Your task to perform on an android device: turn on bluetooth scan Image 0: 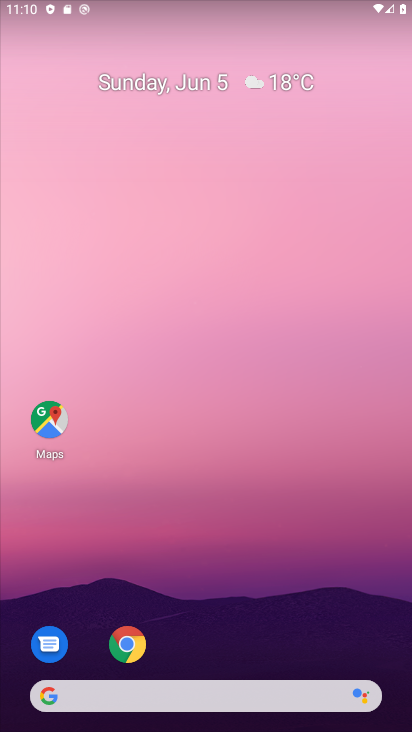
Step 0: drag from (285, 706) to (238, 251)
Your task to perform on an android device: turn on bluetooth scan Image 1: 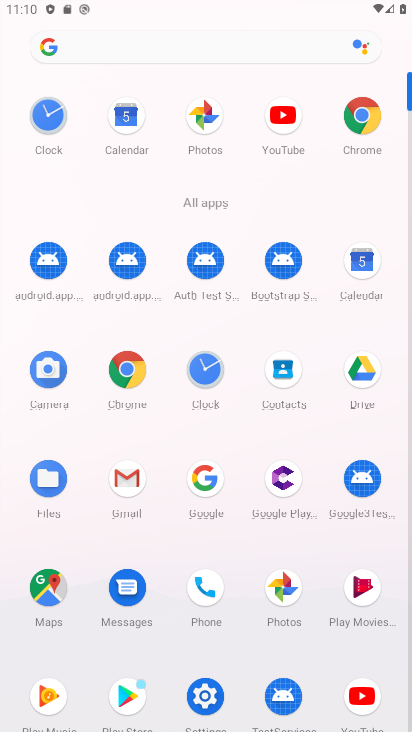
Step 1: click (210, 681)
Your task to perform on an android device: turn on bluetooth scan Image 2: 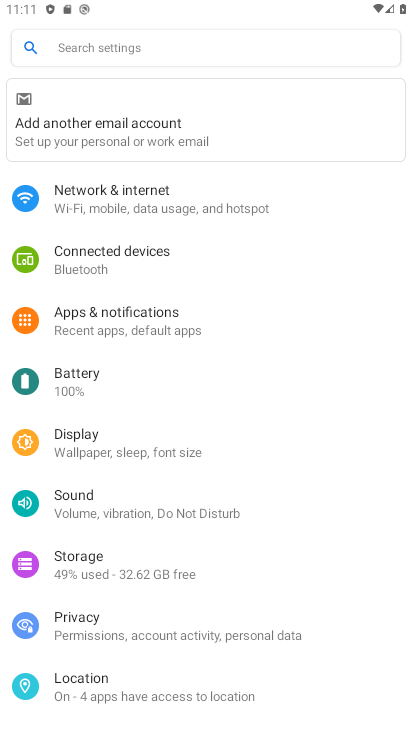
Step 2: click (126, 52)
Your task to perform on an android device: turn on bluetooth scan Image 3: 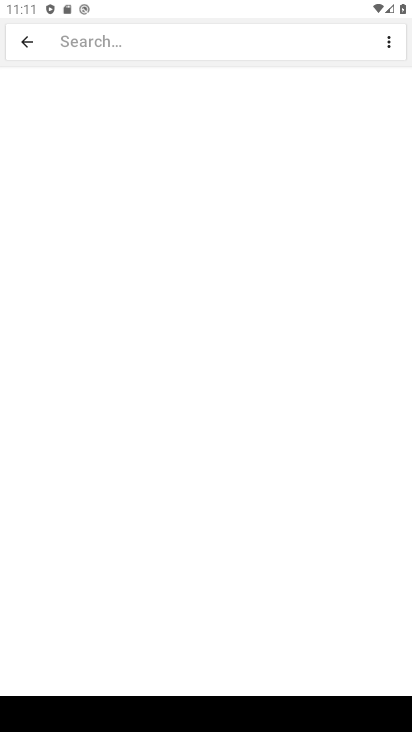
Step 3: drag from (388, 707) to (383, 535)
Your task to perform on an android device: turn on bluetooth scan Image 4: 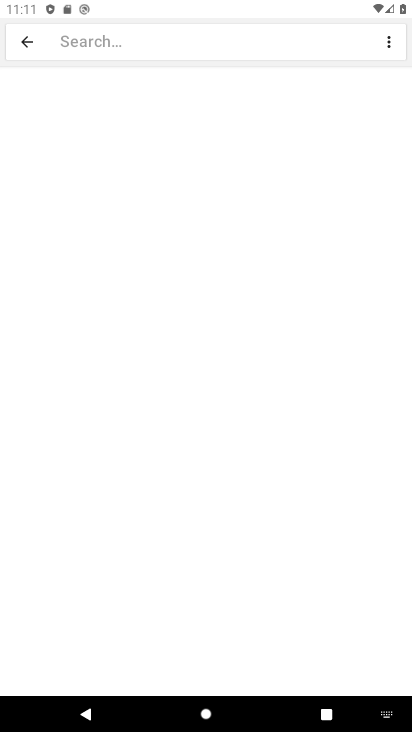
Step 4: click (396, 708)
Your task to perform on an android device: turn on bluetooth scan Image 5: 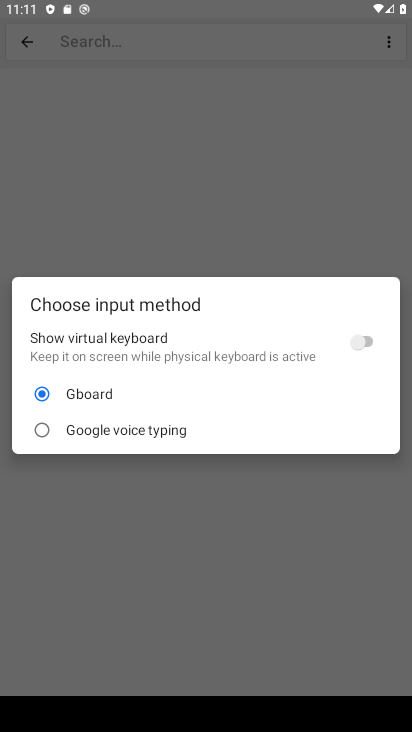
Step 5: click (378, 340)
Your task to perform on an android device: turn on bluetooth scan Image 6: 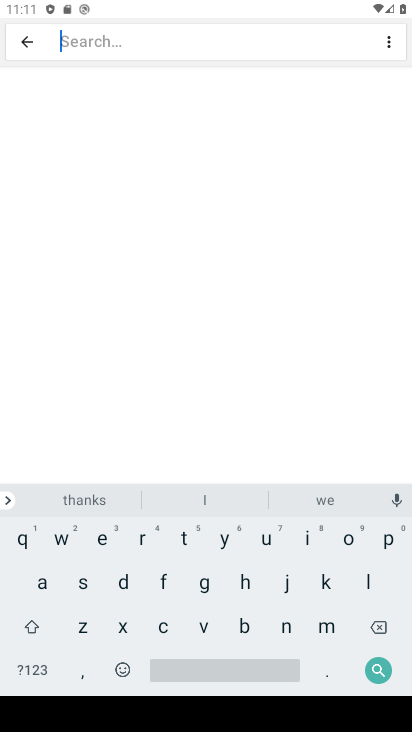
Step 6: click (364, 588)
Your task to perform on an android device: turn on bluetooth scan Image 7: 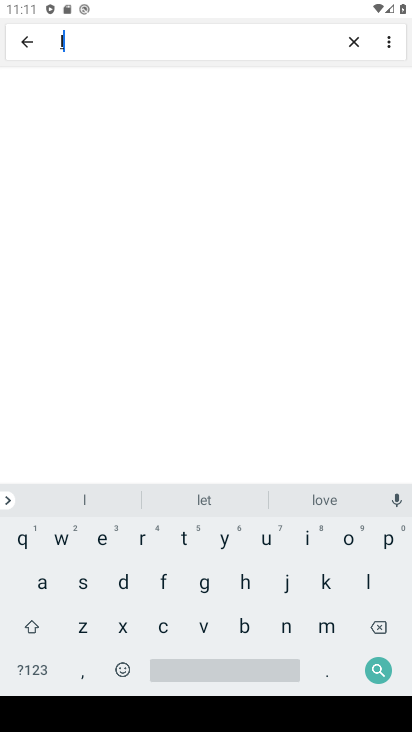
Step 7: click (354, 545)
Your task to perform on an android device: turn on bluetooth scan Image 8: 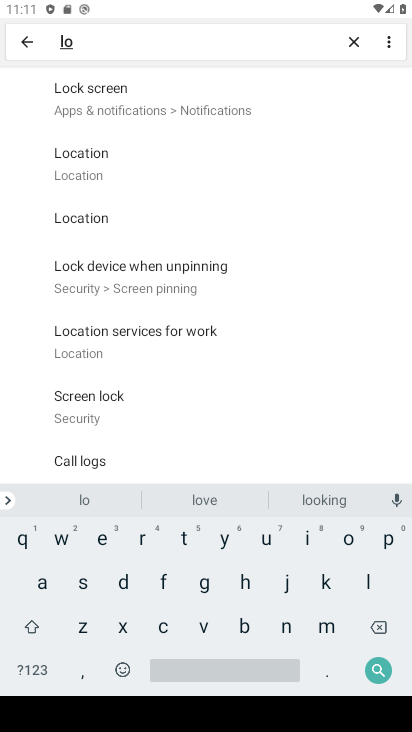
Step 8: click (116, 145)
Your task to perform on an android device: turn on bluetooth scan Image 9: 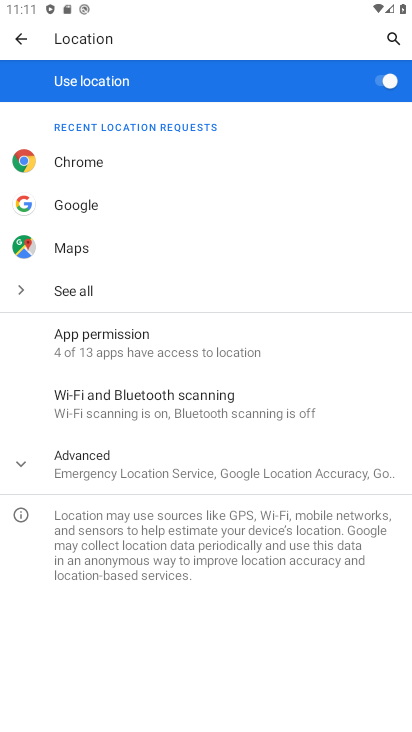
Step 9: click (20, 483)
Your task to perform on an android device: turn on bluetooth scan Image 10: 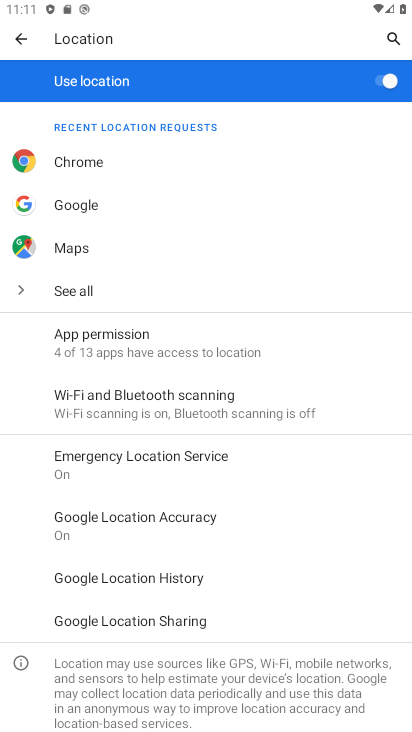
Step 10: click (177, 398)
Your task to perform on an android device: turn on bluetooth scan Image 11: 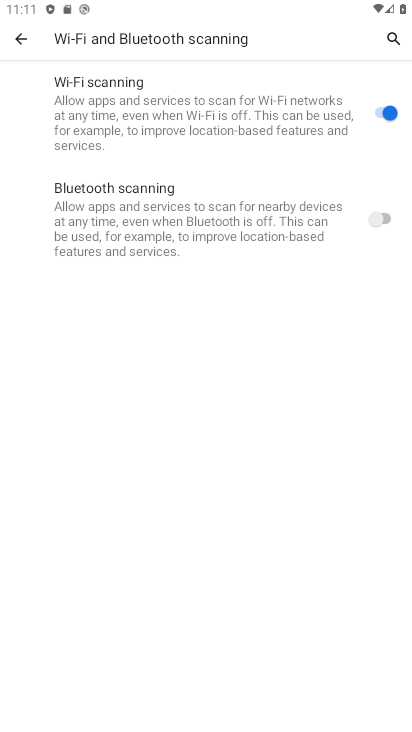
Step 11: click (373, 215)
Your task to perform on an android device: turn on bluetooth scan Image 12: 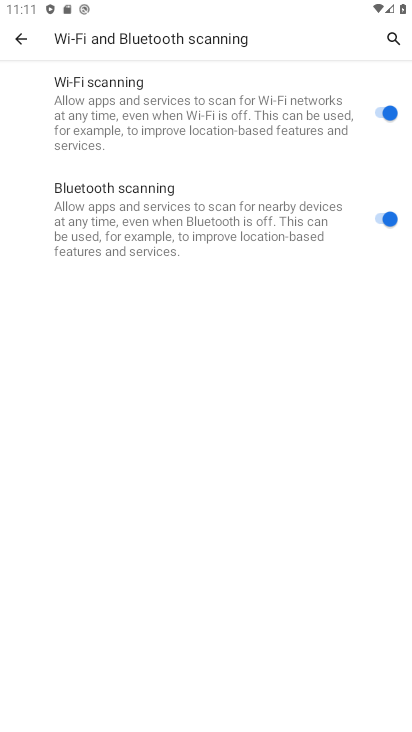
Step 12: task complete